Your task to perform on an android device: turn on notifications settings in the gmail app Image 0: 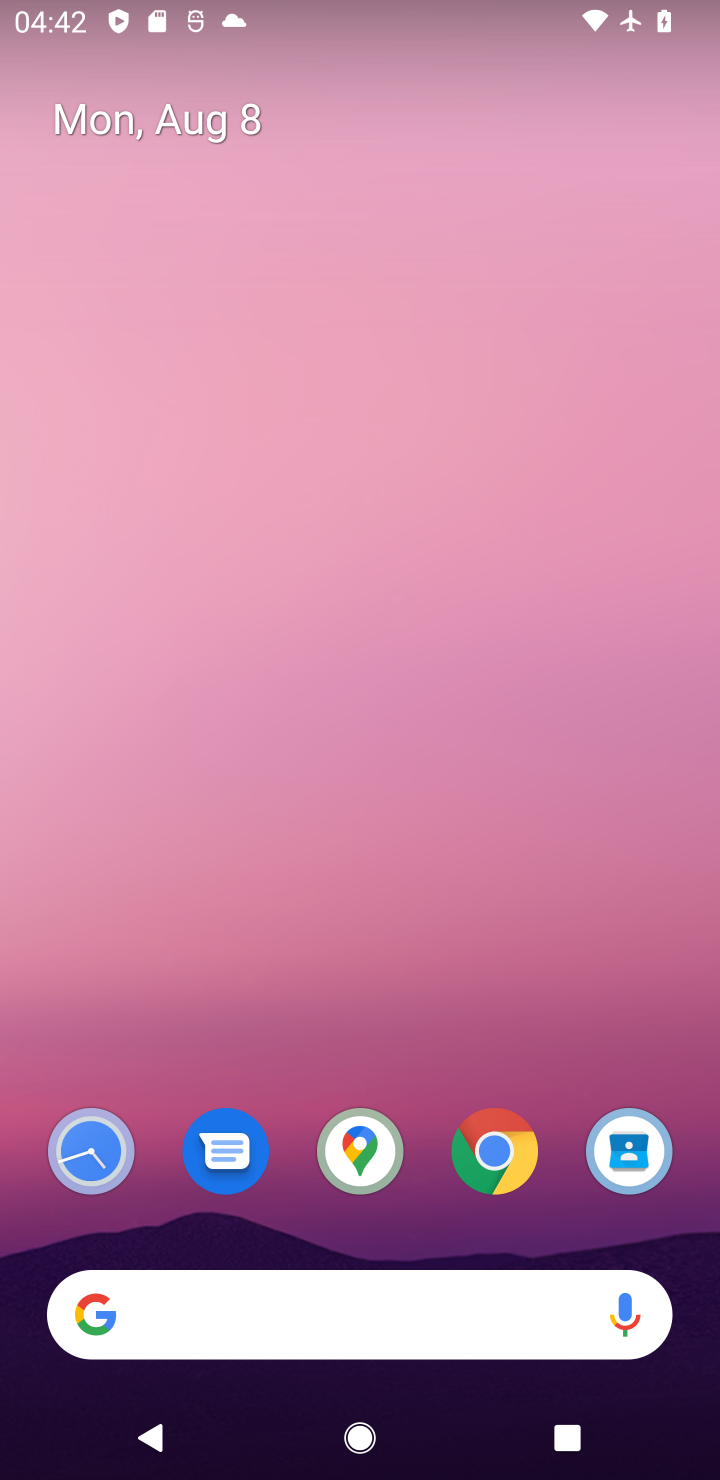
Step 0: drag from (319, 925) to (257, 193)
Your task to perform on an android device: turn on notifications settings in the gmail app Image 1: 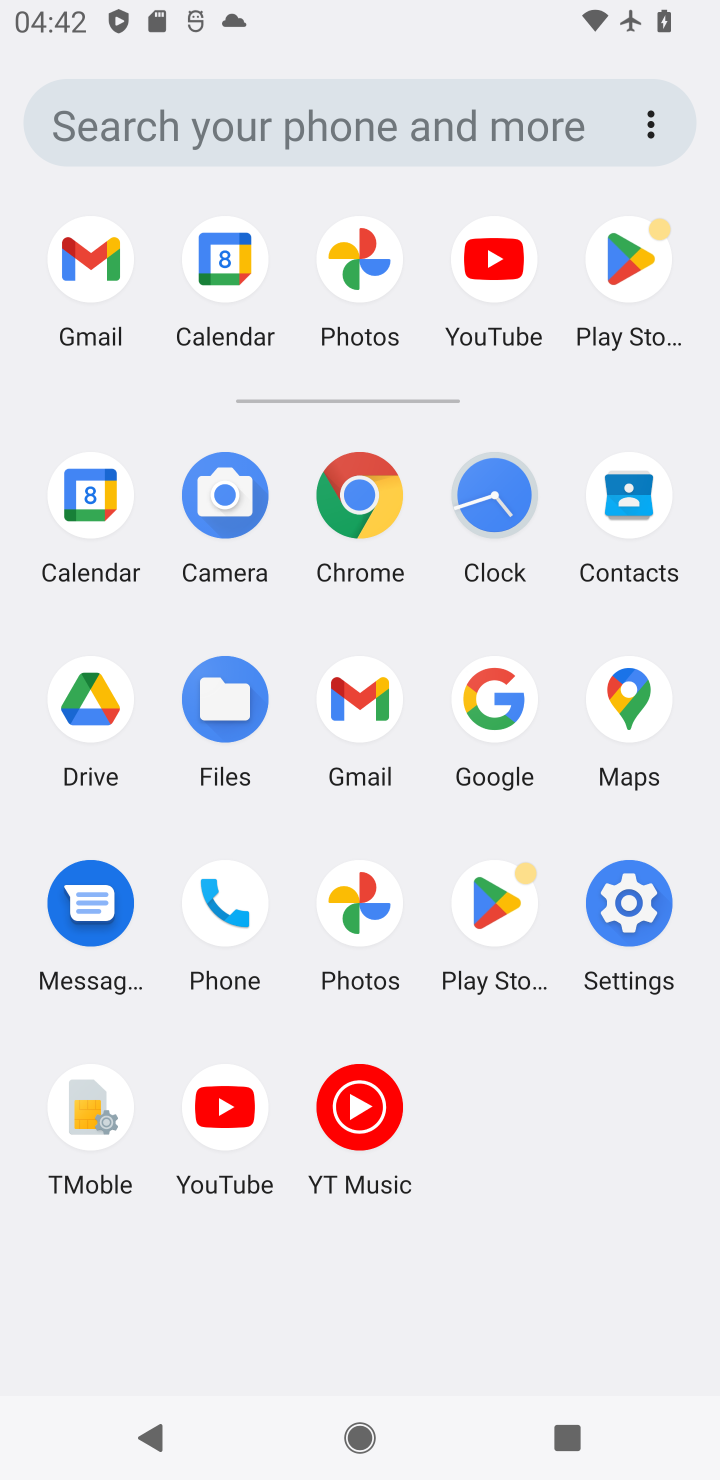
Step 1: click (384, 709)
Your task to perform on an android device: turn on notifications settings in the gmail app Image 2: 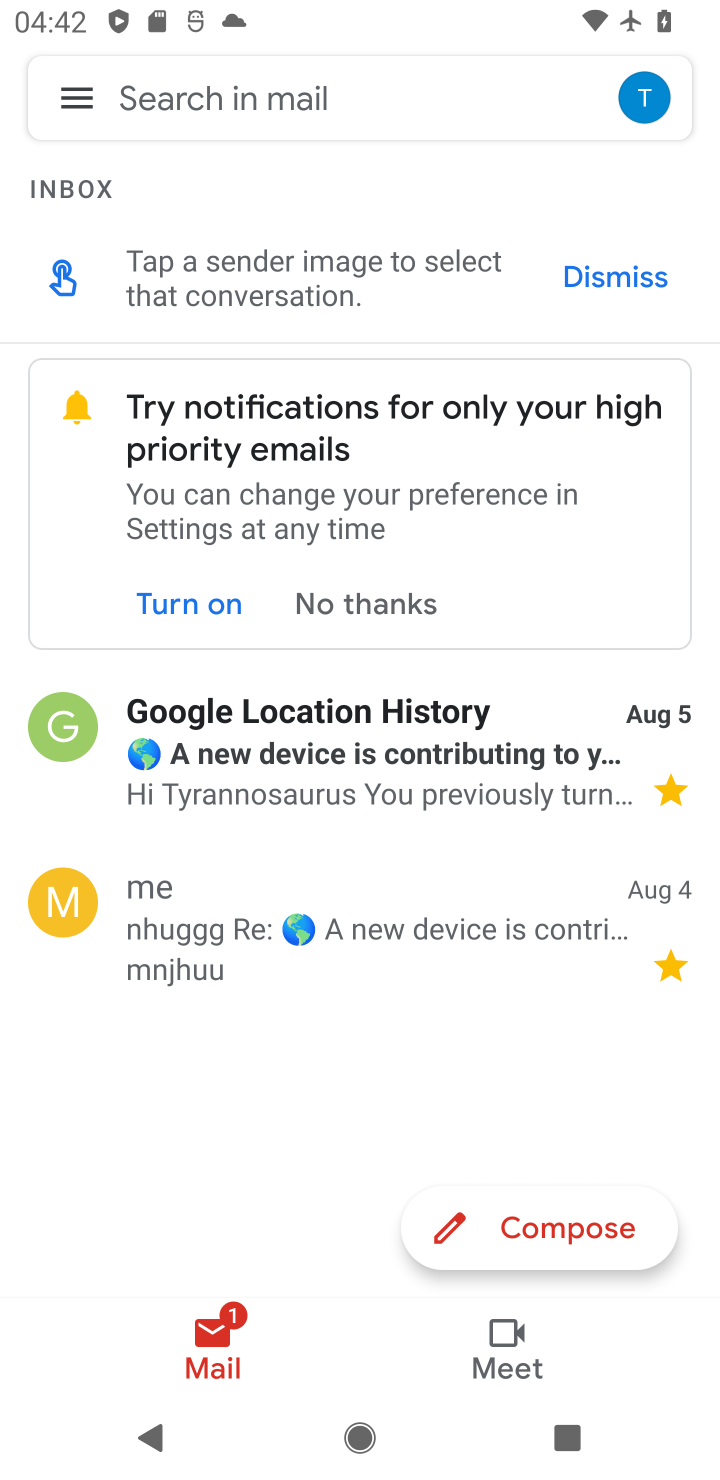
Step 2: click (74, 112)
Your task to perform on an android device: turn on notifications settings in the gmail app Image 3: 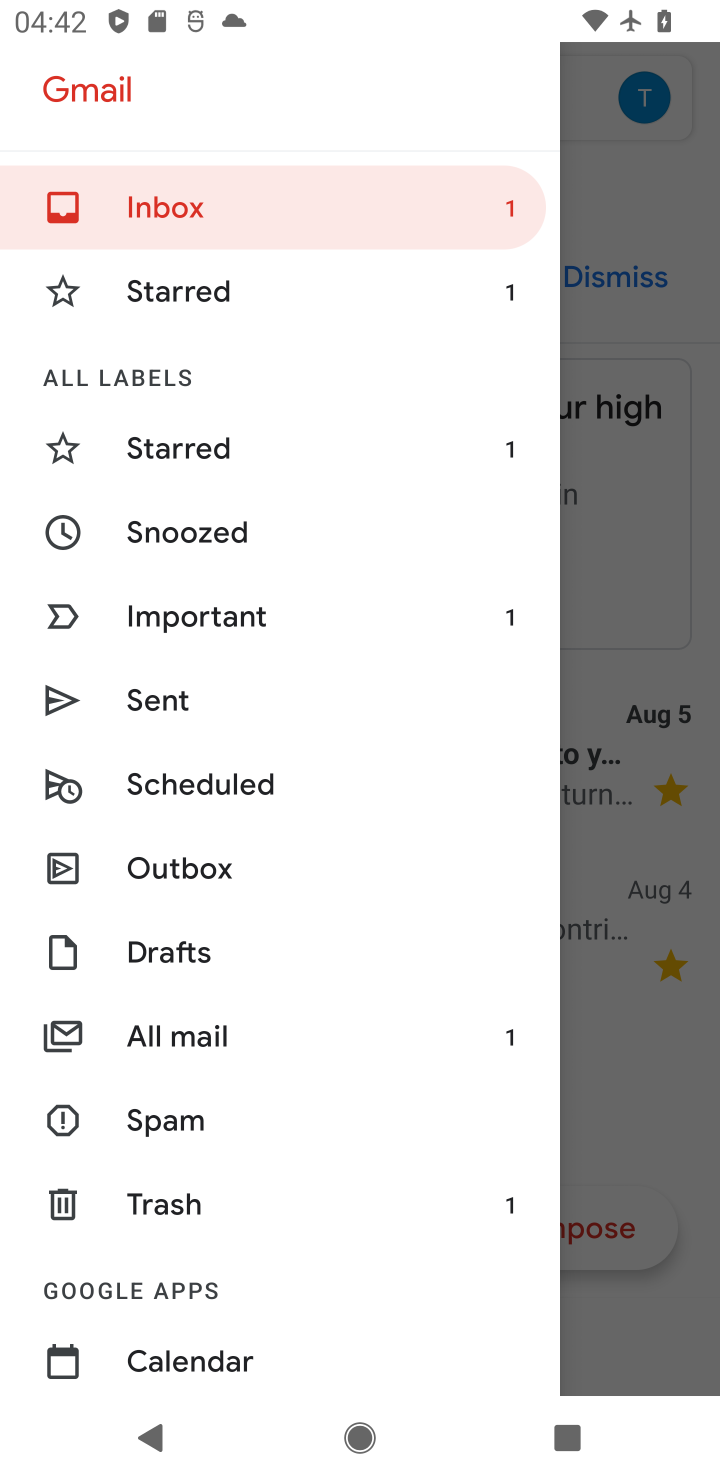
Step 3: drag from (261, 1252) to (261, 444)
Your task to perform on an android device: turn on notifications settings in the gmail app Image 4: 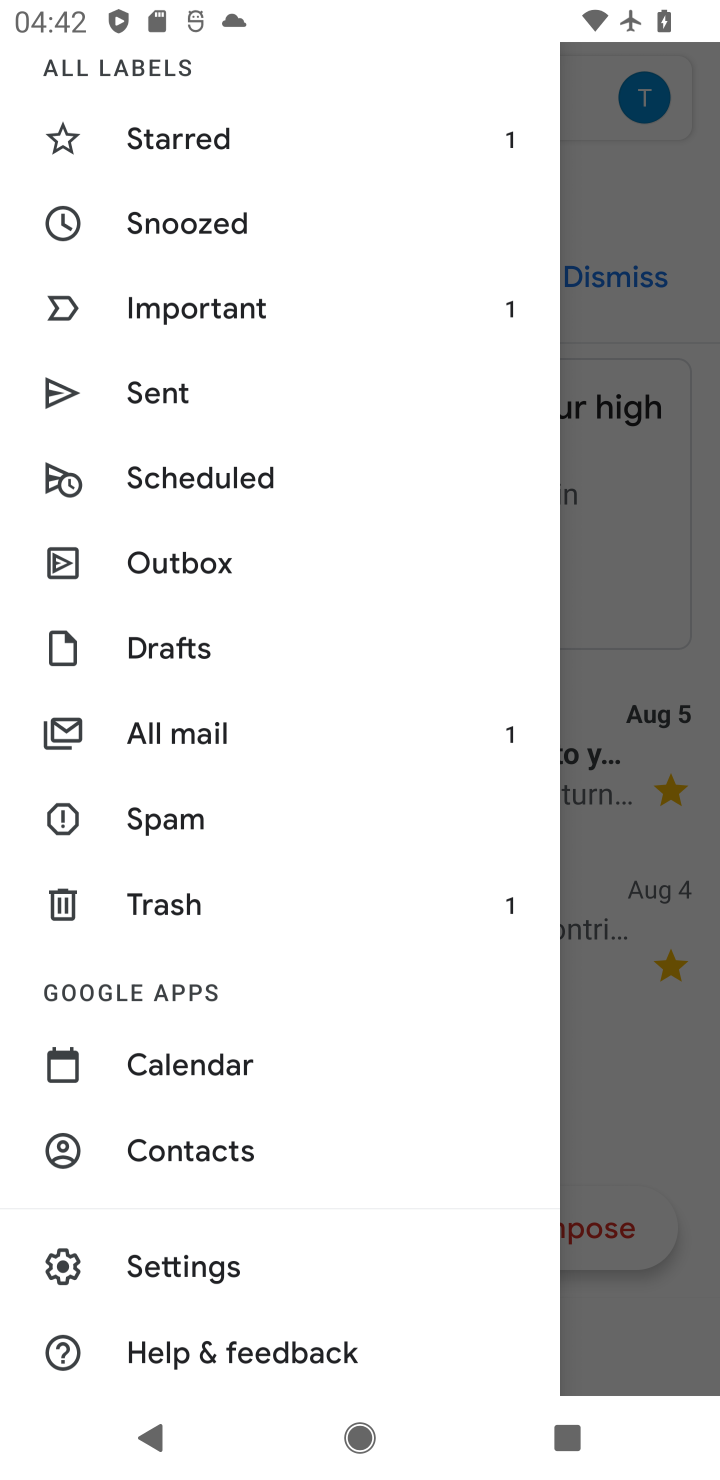
Step 4: click (178, 1254)
Your task to perform on an android device: turn on notifications settings in the gmail app Image 5: 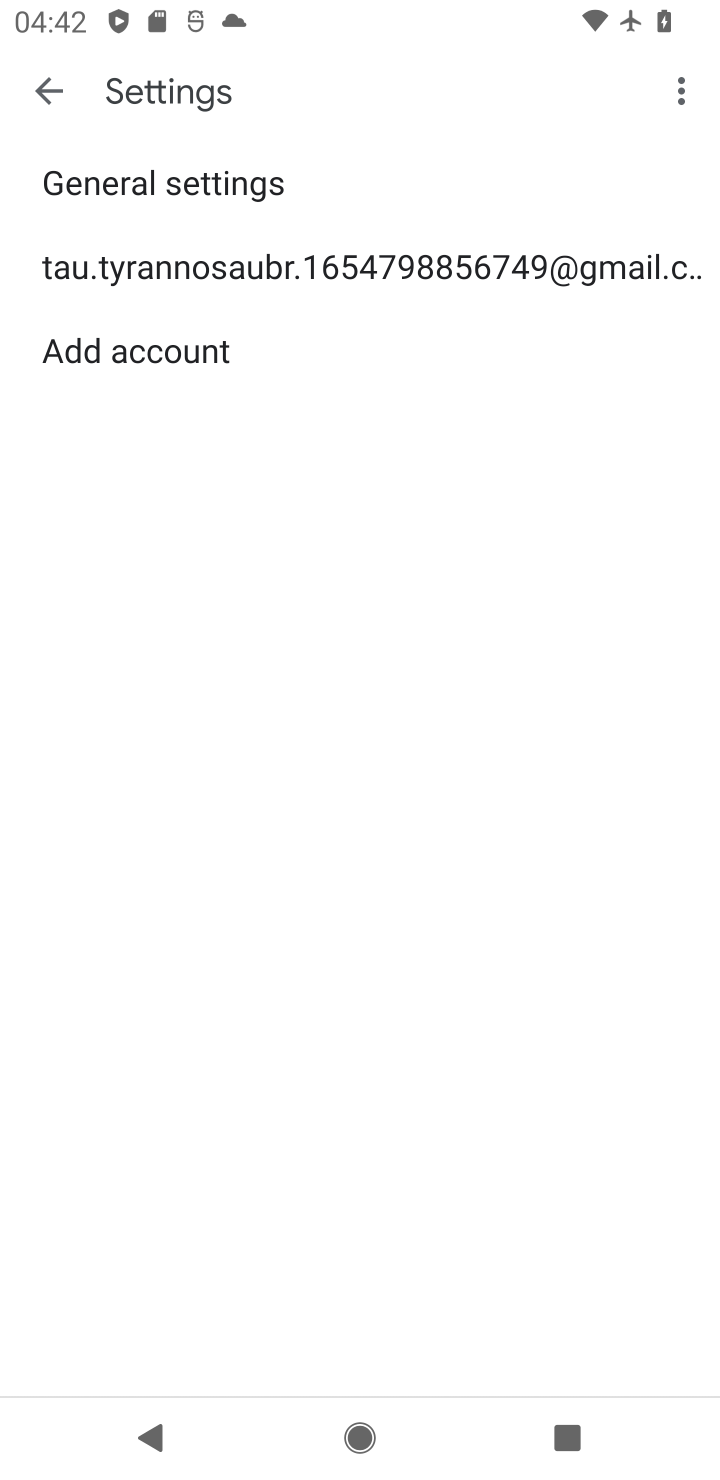
Step 5: click (369, 293)
Your task to perform on an android device: turn on notifications settings in the gmail app Image 6: 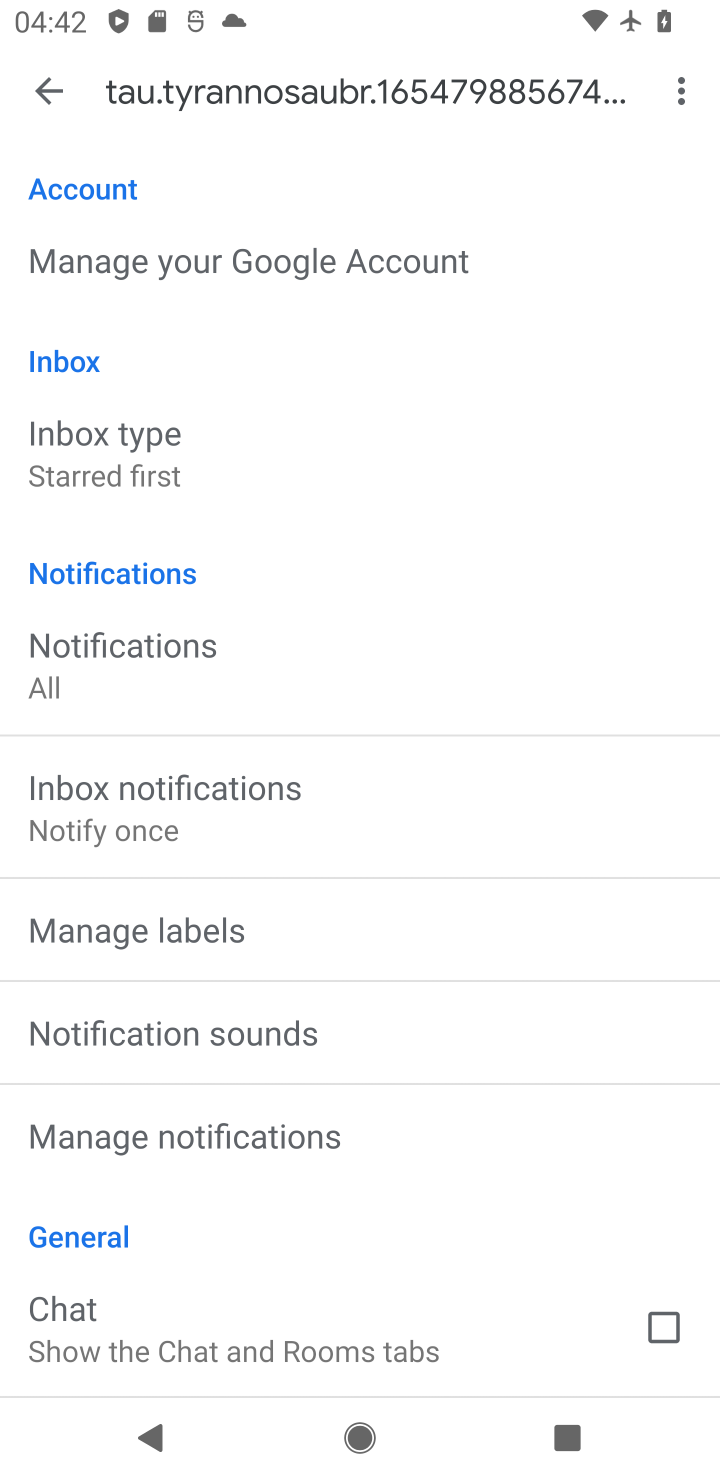
Step 6: click (268, 1132)
Your task to perform on an android device: turn on notifications settings in the gmail app Image 7: 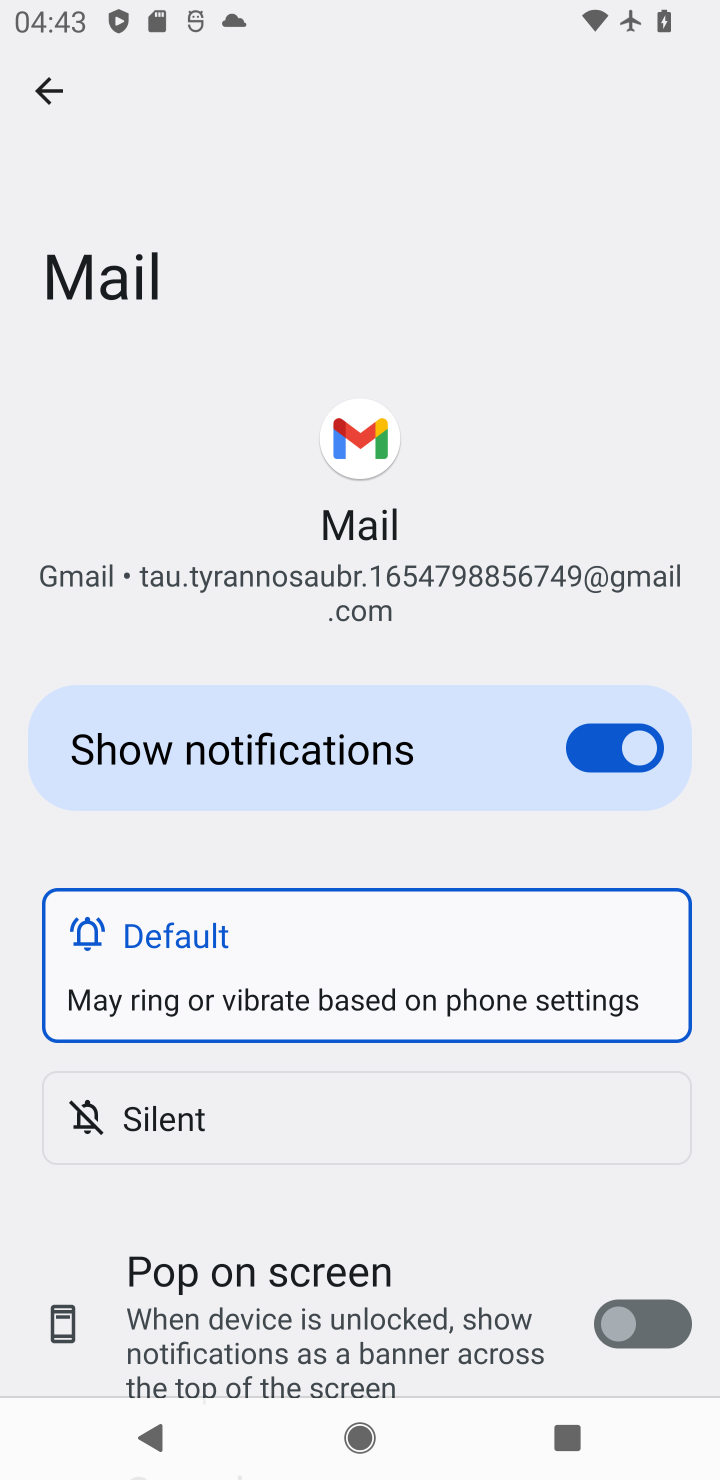
Step 7: task complete